Your task to perform on an android device: Open display settings Image 0: 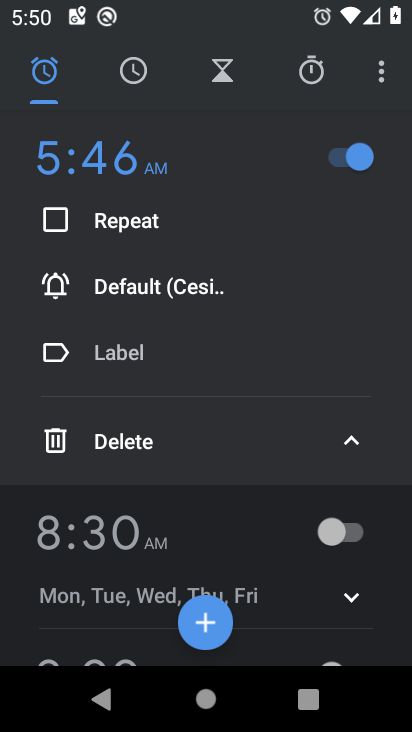
Step 0: press home button
Your task to perform on an android device: Open display settings Image 1: 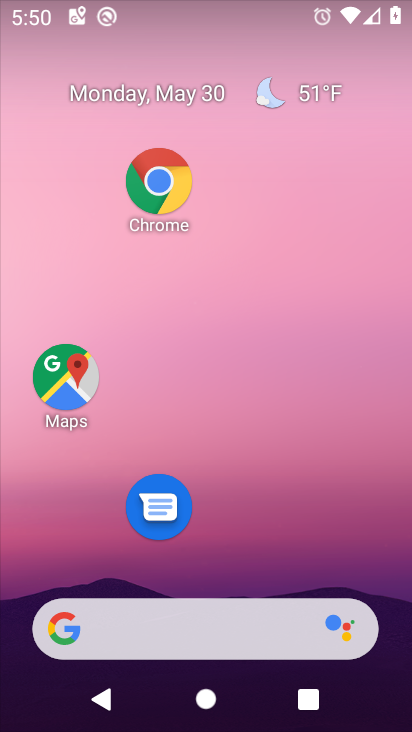
Step 1: drag from (342, 580) to (248, 136)
Your task to perform on an android device: Open display settings Image 2: 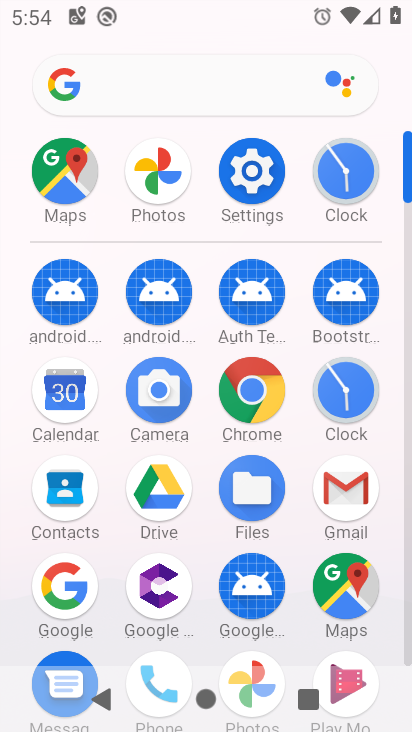
Step 2: click (250, 180)
Your task to perform on an android device: Open display settings Image 3: 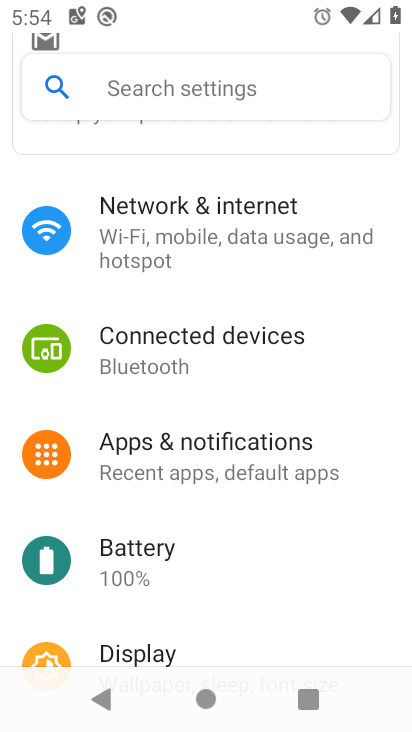
Step 3: click (159, 634)
Your task to perform on an android device: Open display settings Image 4: 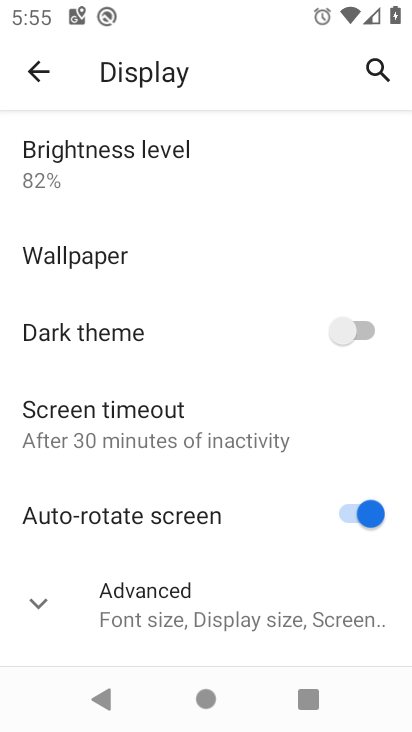
Step 4: task complete